Your task to perform on an android device: Open Yahoo.com Image 0: 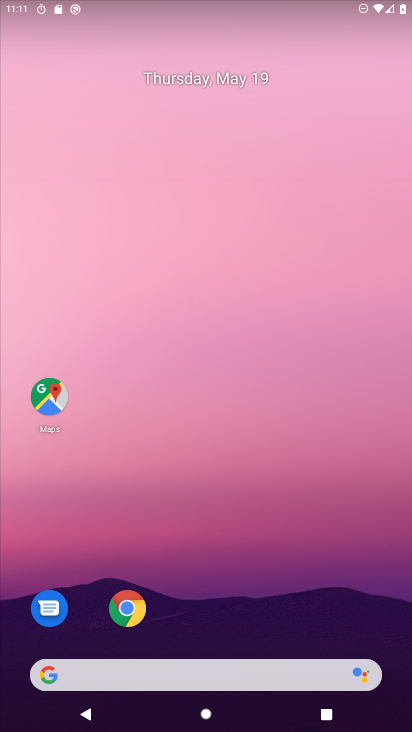
Step 0: click (129, 597)
Your task to perform on an android device: Open Yahoo.com Image 1: 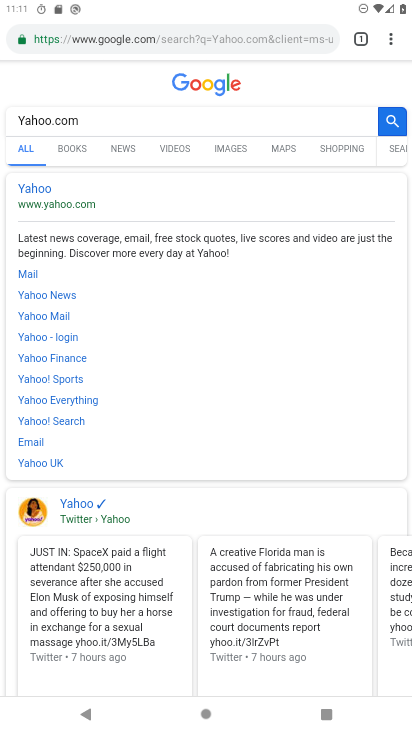
Step 1: click (333, 34)
Your task to perform on an android device: Open Yahoo.com Image 2: 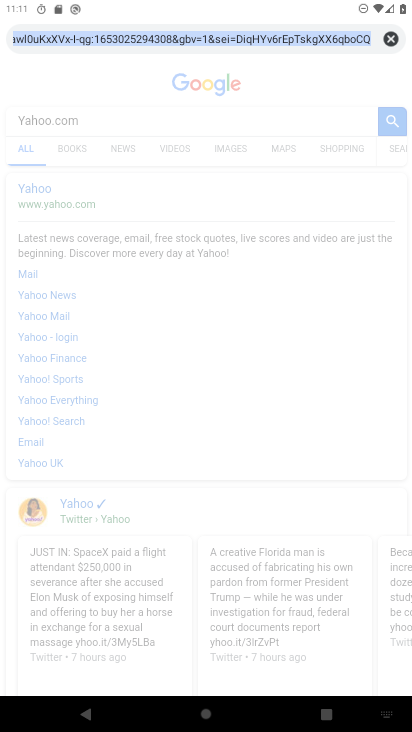
Step 2: click (398, 42)
Your task to perform on an android device: Open Yahoo.com Image 3: 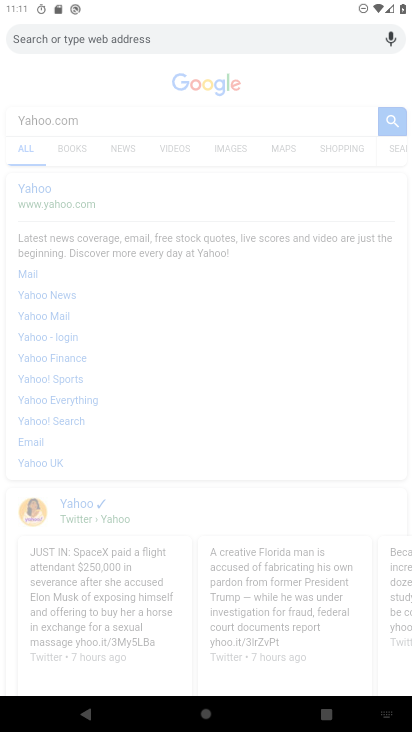
Step 3: type "Yahoo.com"
Your task to perform on an android device: Open Yahoo.com Image 4: 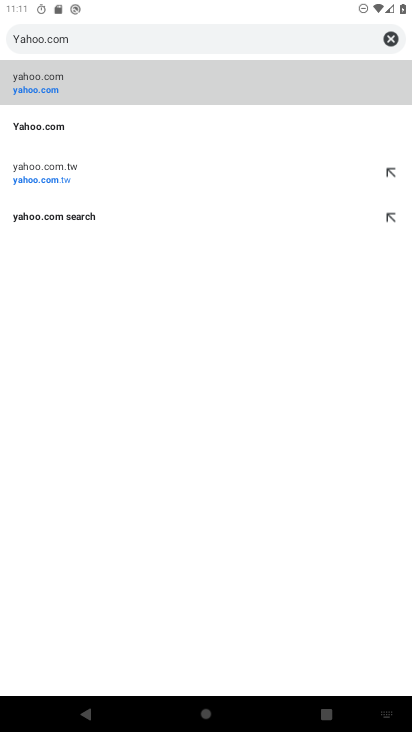
Step 4: click (44, 127)
Your task to perform on an android device: Open Yahoo.com Image 5: 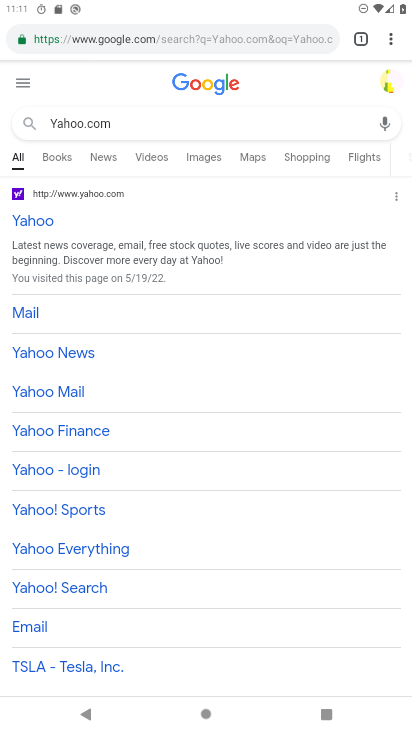
Step 5: task complete